Your task to perform on an android device: Open Youtube and go to the subscriptions tab Image 0: 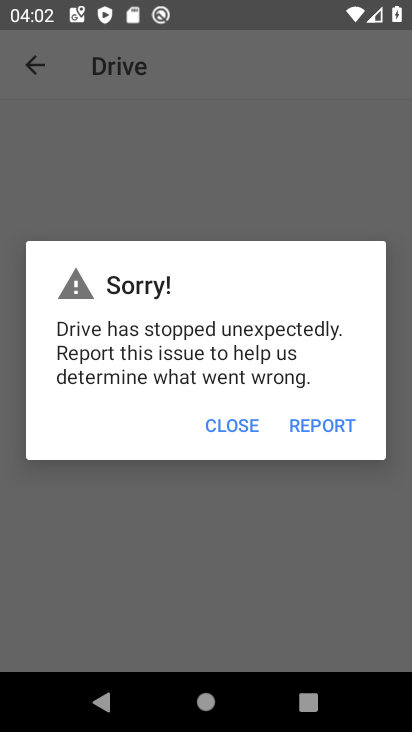
Step 0: press home button
Your task to perform on an android device: Open Youtube and go to the subscriptions tab Image 1: 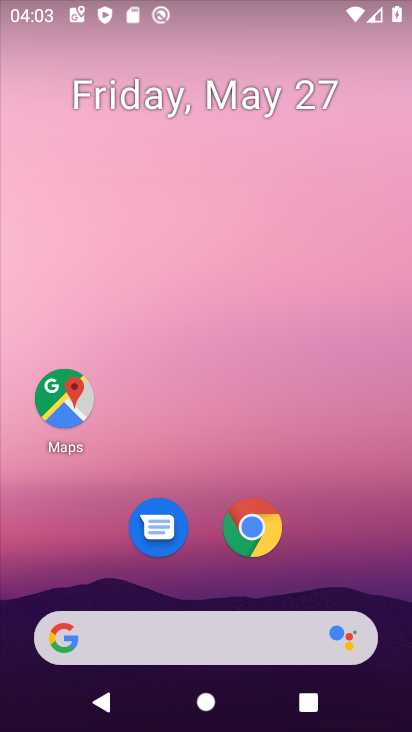
Step 1: drag from (345, 548) to (344, 72)
Your task to perform on an android device: Open Youtube and go to the subscriptions tab Image 2: 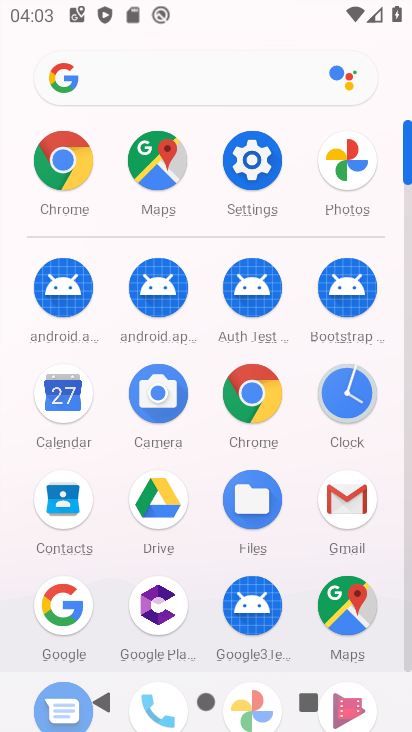
Step 2: click (405, 671)
Your task to perform on an android device: Open Youtube and go to the subscriptions tab Image 3: 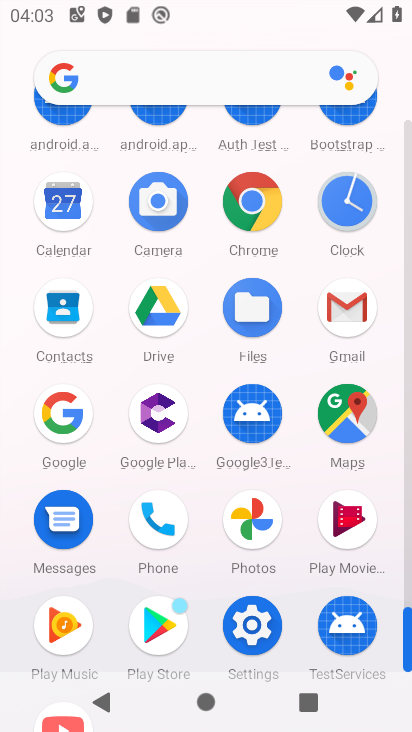
Step 3: drag from (409, 651) to (60, 725)
Your task to perform on an android device: Open Youtube and go to the subscriptions tab Image 4: 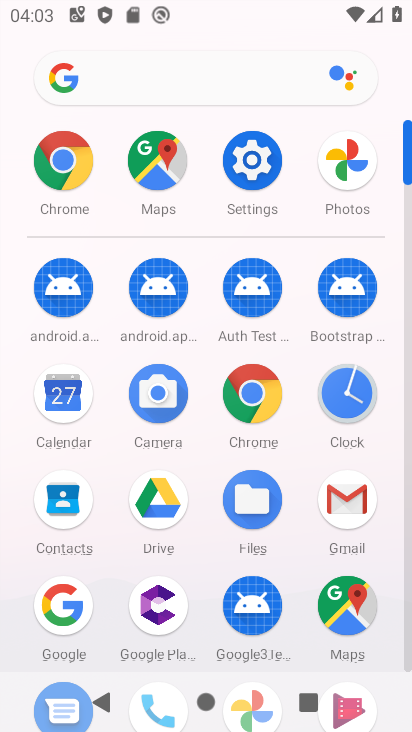
Step 4: click (408, 663)
Your task to perform on an android device: Open Youtube and go to the subscriptions tab Image 5: 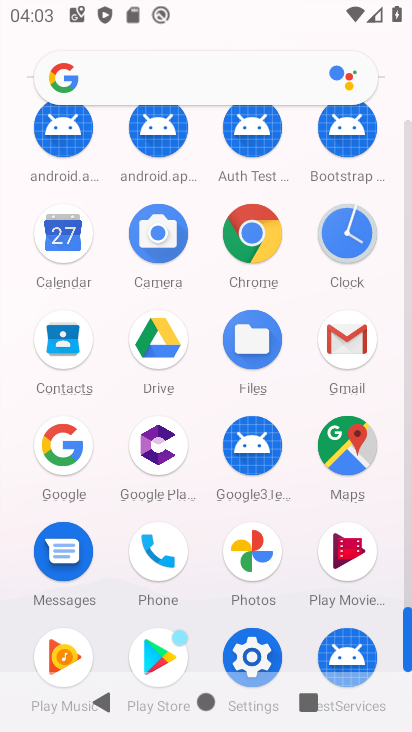
Step 5: drag from (304, 607) to (288, 427)
Your task to perform on an android device: Open Youtube and go to the subscriptions tab Image 6: 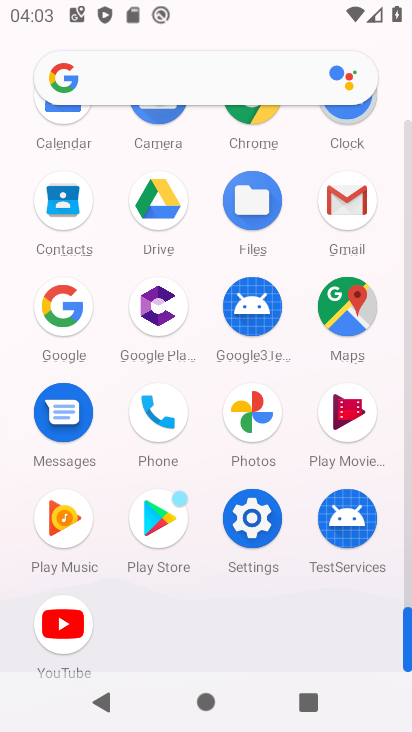
Step 6: click (75, 639)
Your task to perform on an android device: Open Youtube and go to the subscriptions tab Image 7: 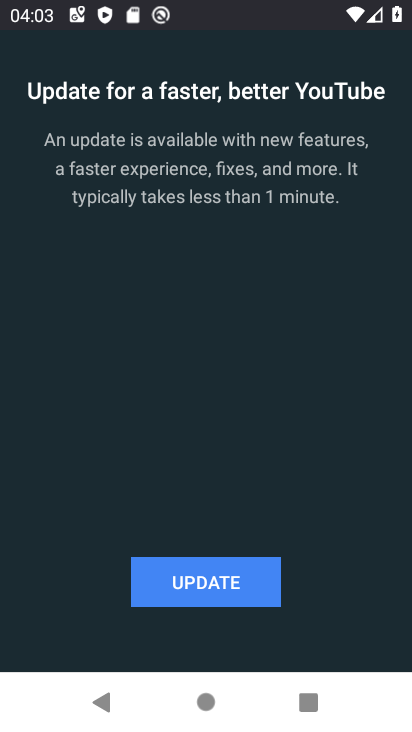
Step 7: click (172, 595)
Your task to perform on an android device: Open Youtube and go to the subscriptions tab Image 8: 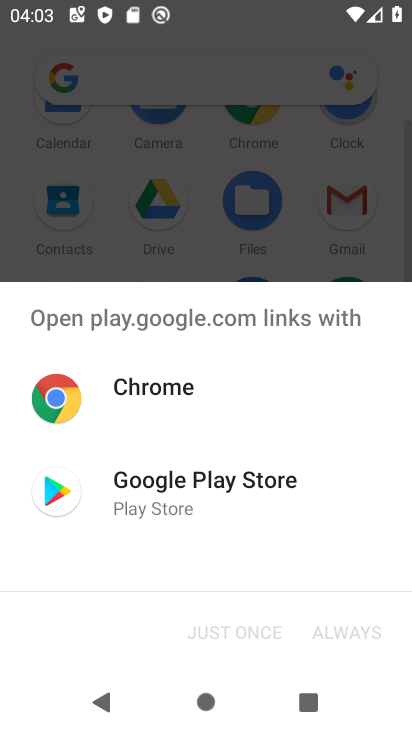
Step 8: click (145, 506)
Your task to perform on an android device: Open Youtube and go to the subscriptions tab Image 9: 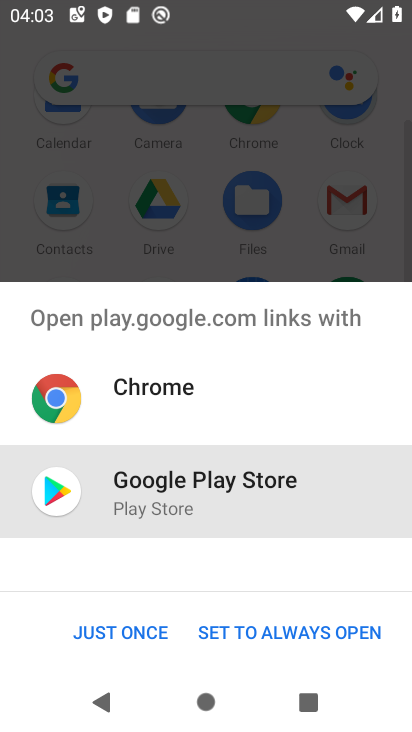
Step 9: click (147, 625)
Your task to perform on an android device: Open Youtube and go to the subscriptions tab Image 10: 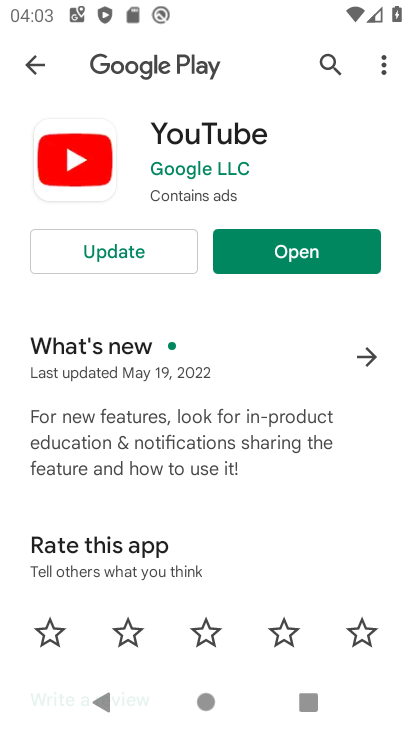
Step 10: click (143, 243)
Your task to perform on an android device: Open Youtube and go to the subscriptions tab Image 11: 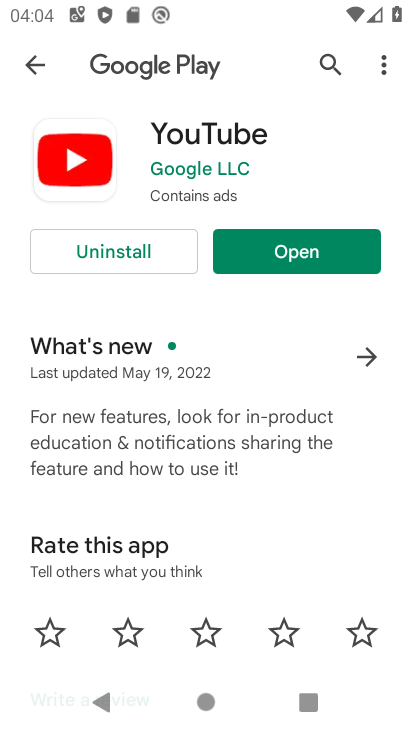
Step 11: click (300, 234)
Your task to perform on an android device: Open Youtube and go to the subscriptions tab Image 12: 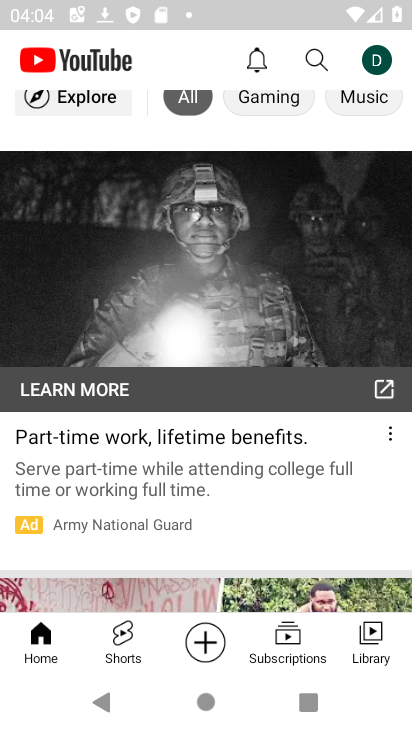
Step 12: click (297, 623)
Your task to perform on an android device: Open Youtube and go to the subscriptions tab Image 13: 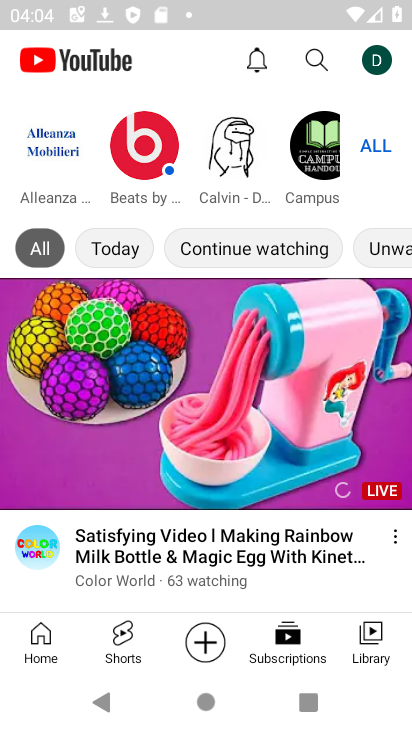
Step 13: task complete